Your task to perform on an android device: turn pop-ups on in chrome Image 0: 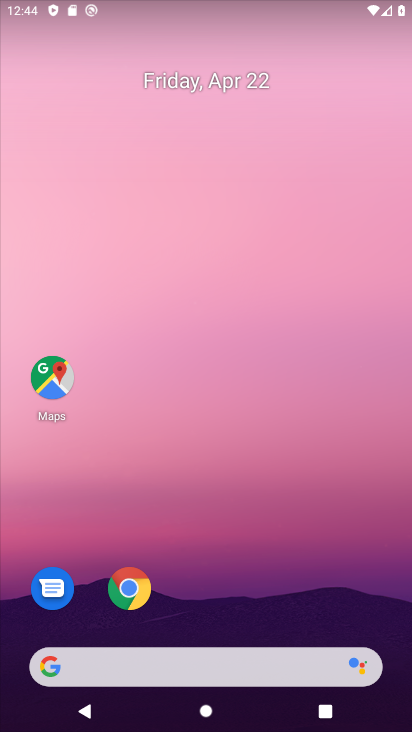
Step 0: drag from (185, 691) to (73, 102)
Your task to perform on an android device: turn pop-ups on in chrome Image 1: 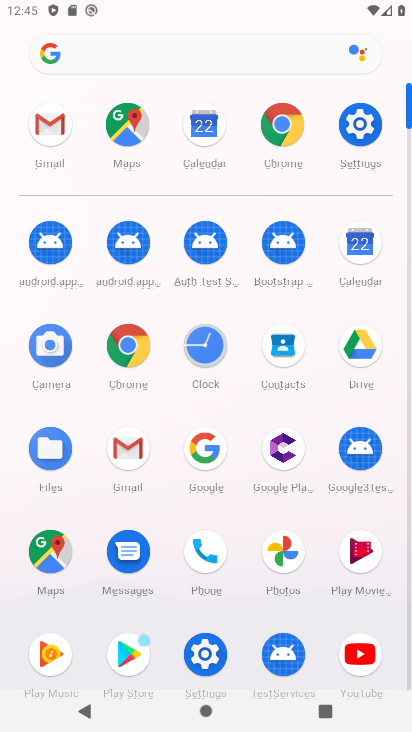
Step 1: click (125, 347)
Your task to perform on an android device: turn pop-ups on in chrome Image 2: 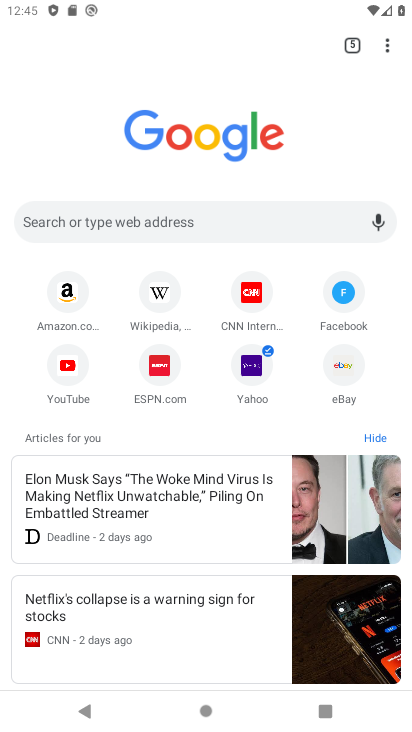
Step 2: click (387, 49)
Your task to perform on an android device: turn pop-ups on in chrome Image 3: 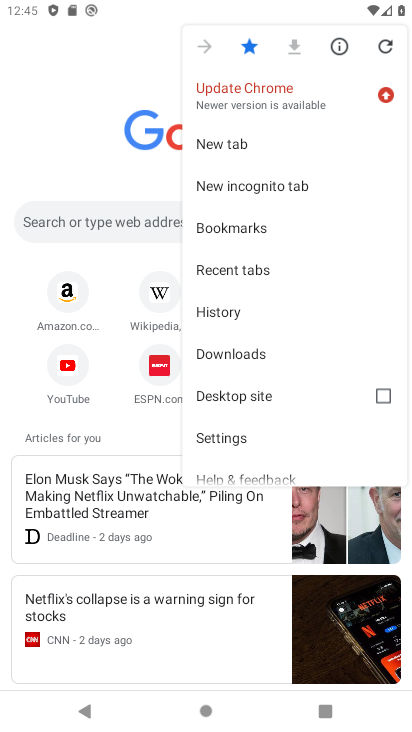
Step 3: click (224, 429)
Your task to perform on an android device: turn pop-ups on in chrome Image 4: 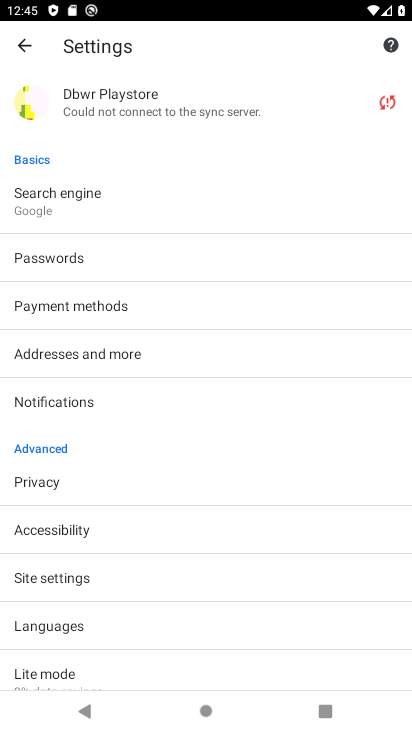
Step 4: click (70, 573)
Your task to perform on an android device: turn pop-ups on in chrome Image 5: 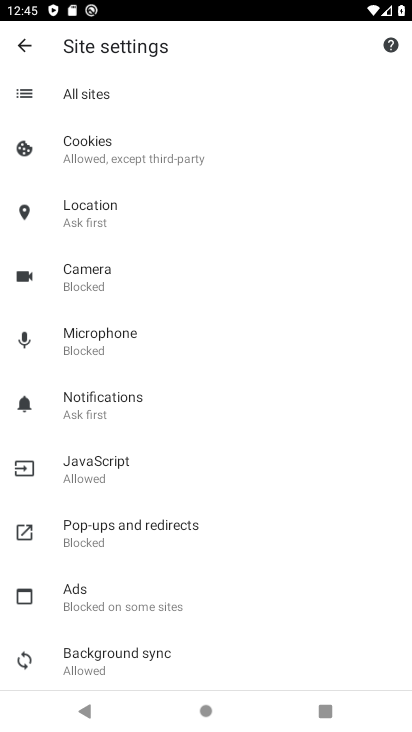
Step 5: click (101, 534)
Your task to perform on an android device: turn pop-ups on in chrome Image 6: 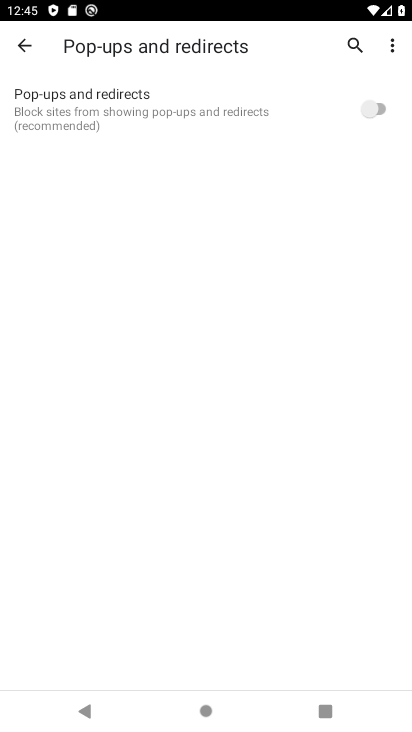
Step 6: click (297, 109)
Your task to perform on an android device: turn pop-ups on in chrome Image 7: 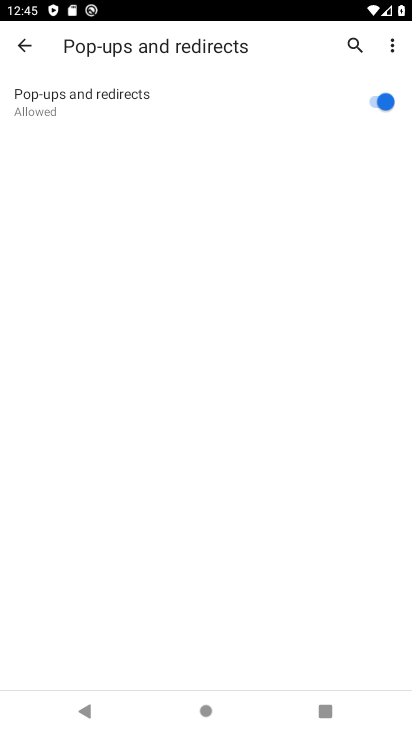
Step 7: task complete